Your task to perform on an android device: Open ESPN.com Image 0: 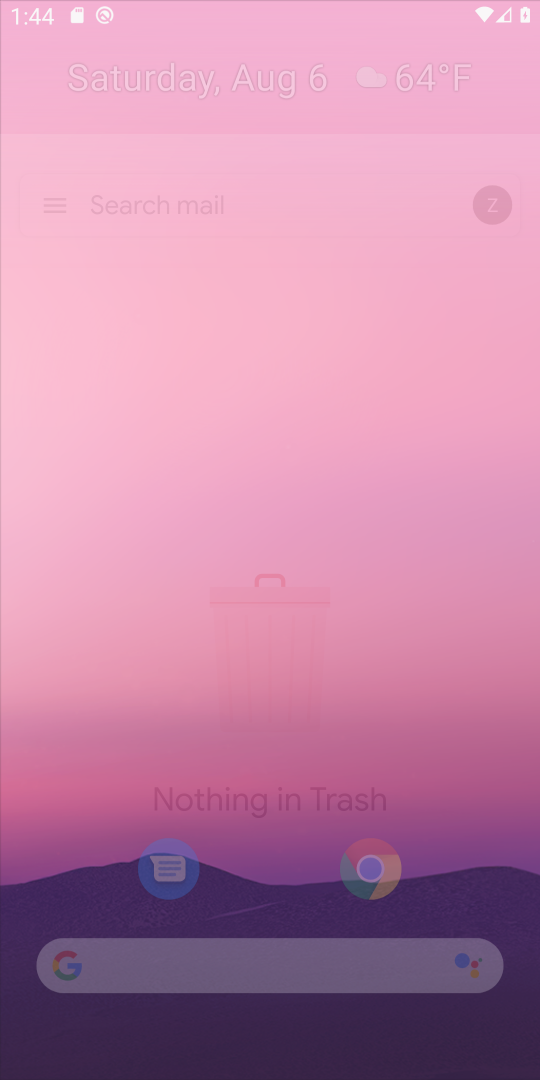
Step 0: press home button
Your task to perform on an android device: Open ESPN.com Image 1: 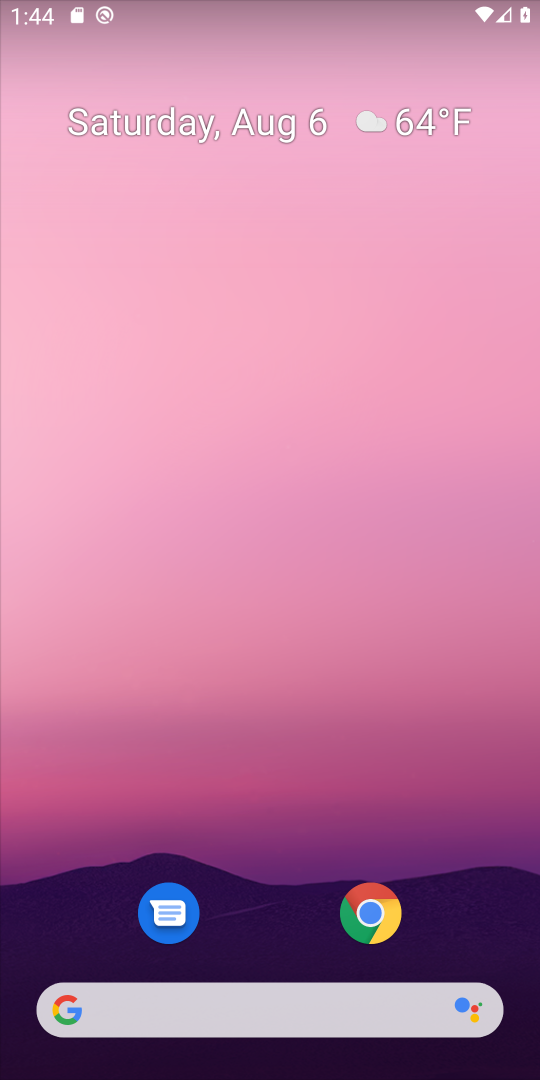
Step 1: drag from (488, 930) to (499, 412)
Your task to perform on an android device: Open ESPN.com Image 2: 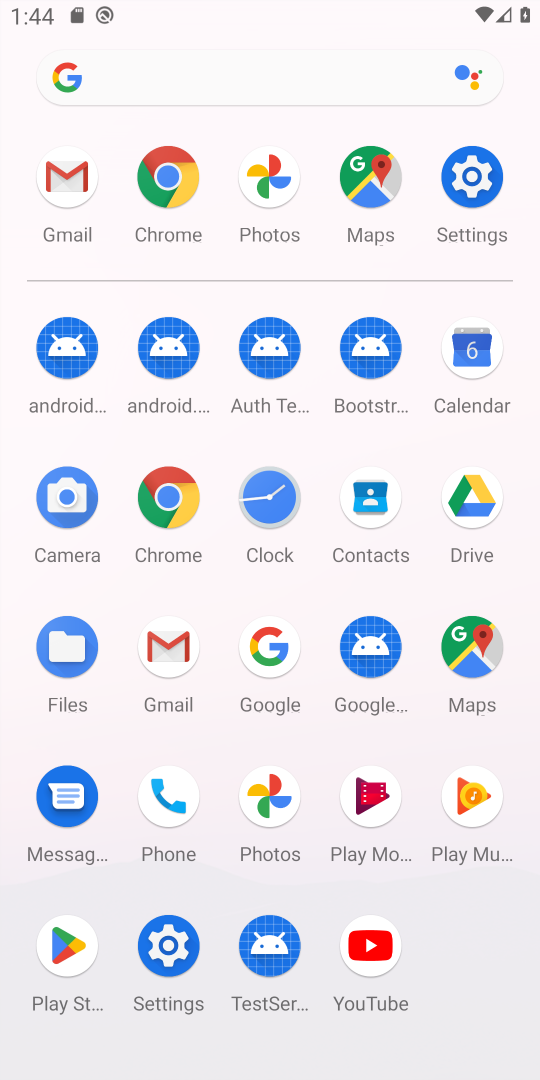
Step 2: click (176, 494)
Your task to perform on an android device: Open ESPN.com Image 3: 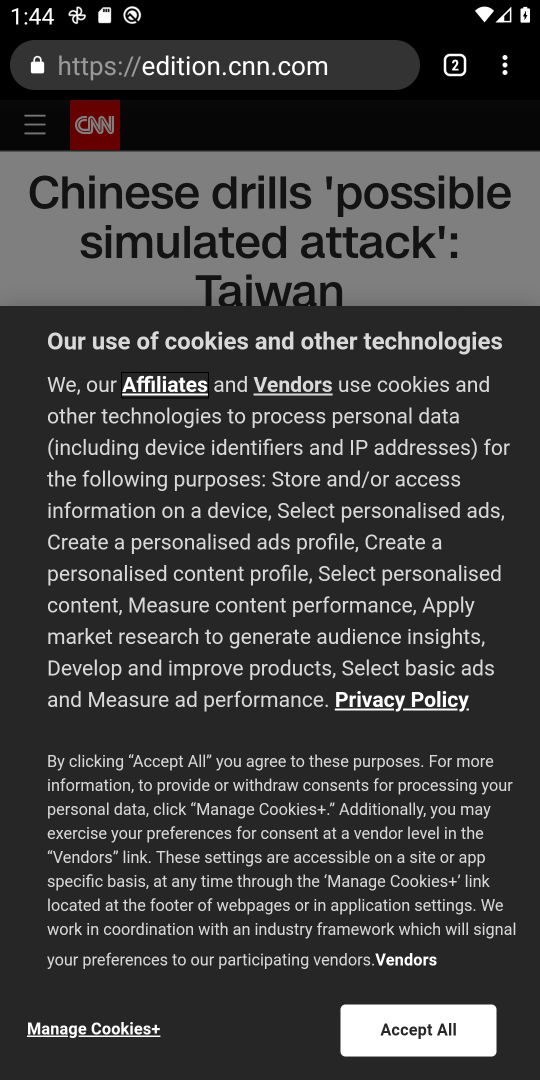
Step 3: click (325, 61)
Your task to perform on an android device: Open ESPN.com Image 4: 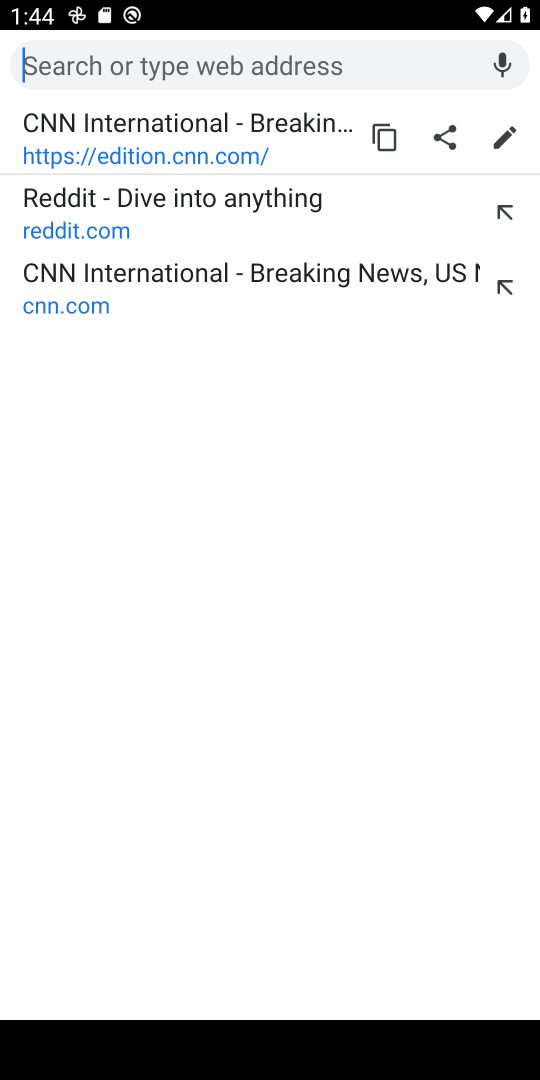
Step 4: type "espn.com"
Your task to perform on an android device: Open ESPN.com Image 5: 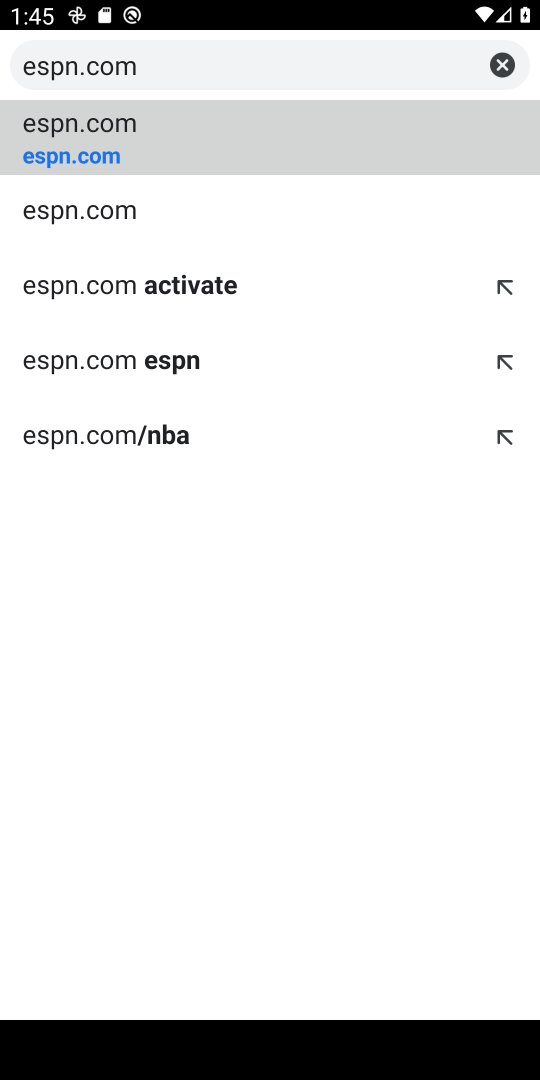
Step 5: click (327, 141)
Your task to perform on an android device: Open ESPN.com Image 6: 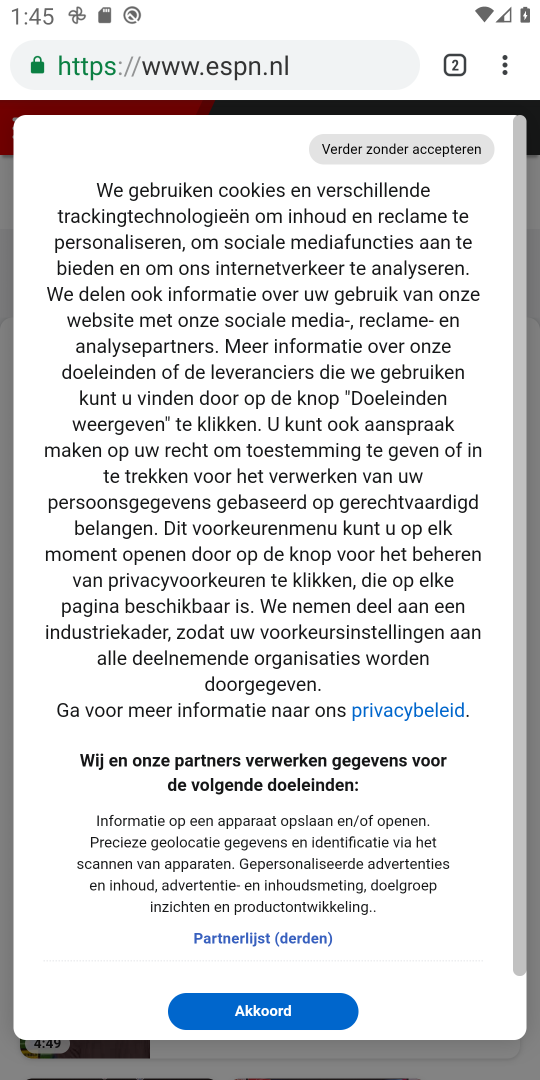
Step 6: task complete